Your task to perform on an android device: Go to sound settings Image 0: 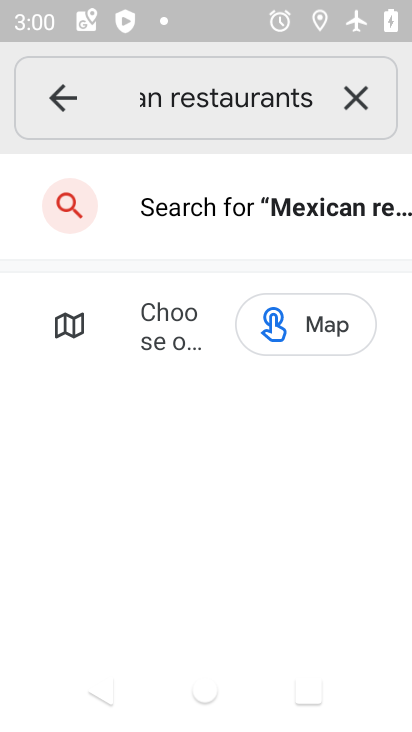
Step 0: press home button
Your task to perform on an android device: Go to sound settings Image 1: 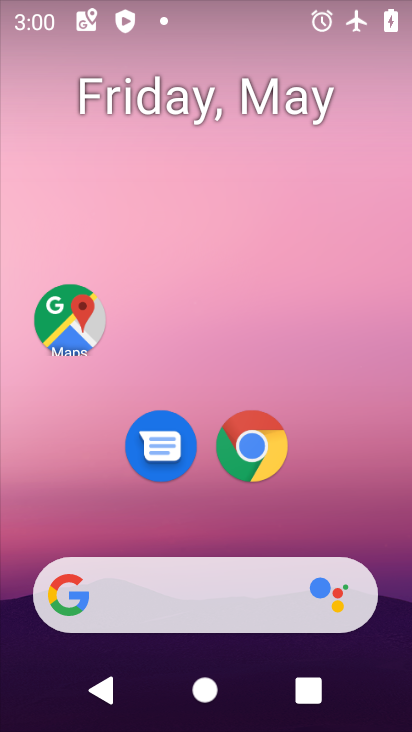
Step 1: drag from (329, 534) to (276, 100)
Your task to perform on an android device: Go to sound settings Image 2: 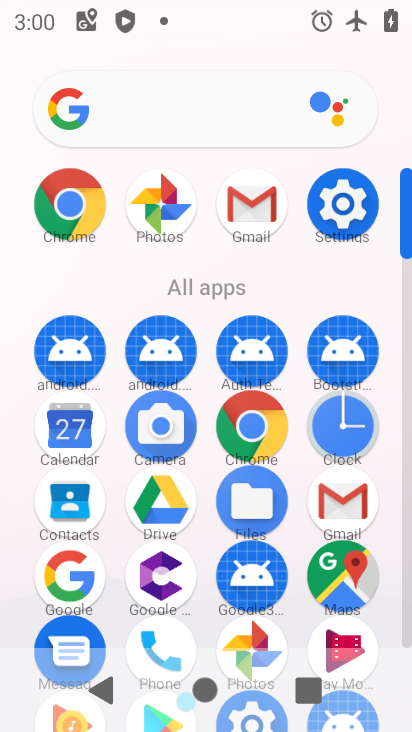
Step 2: click (350, 183)
Your task to perform on an android device: Go to sound settings Image 3: 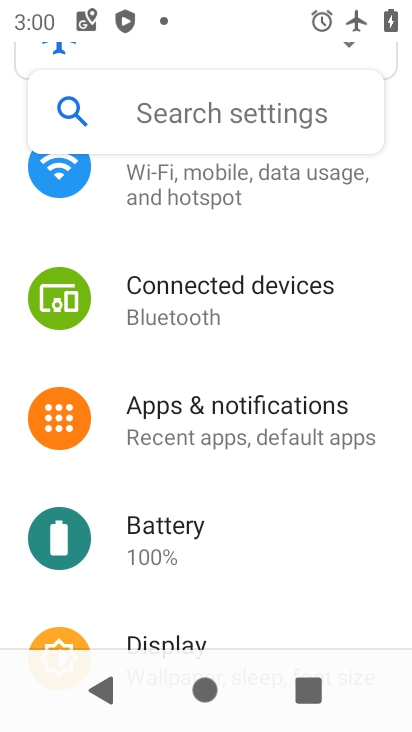
Step 3: drag from (259, 497) to (233, 195)
Your task to perform on an android device: Go to sound settings Image 4: 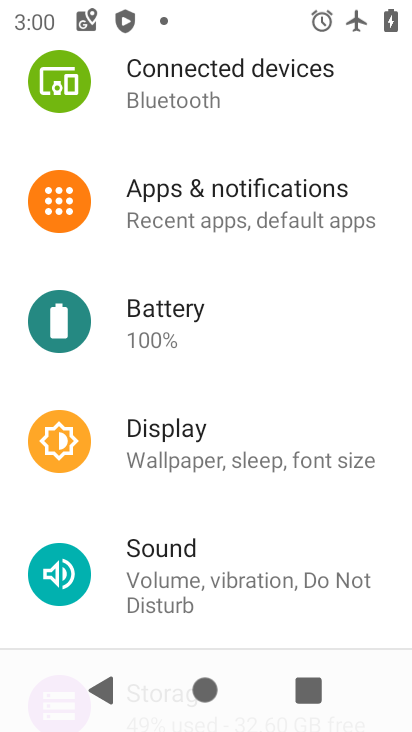
Step 4: click (231, 571)
Your task to perform on an android device: Go to sound settings Image 5: 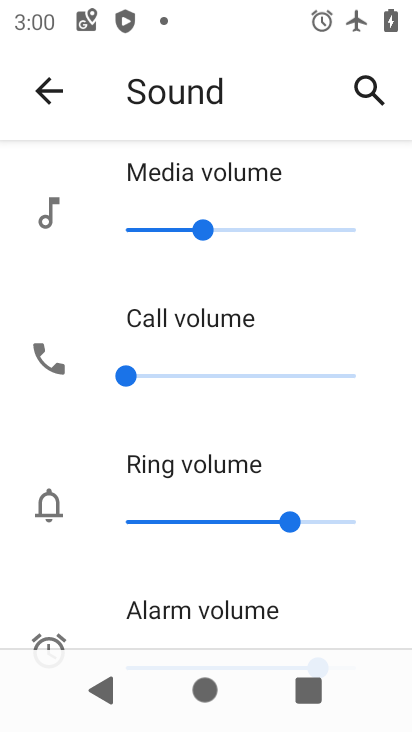
Step 5: task complete